Your task to perform on an android device: Open Yahoo.com Image 0: 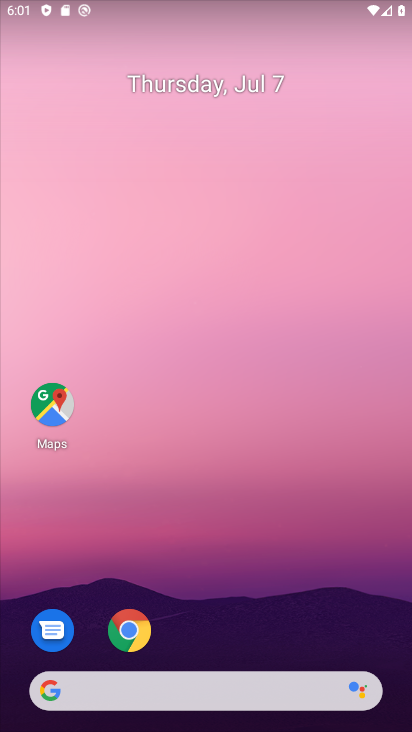
Step 0: click (130, 643)
Your task to perform on an android device: Open Yahoo.com Image 1: 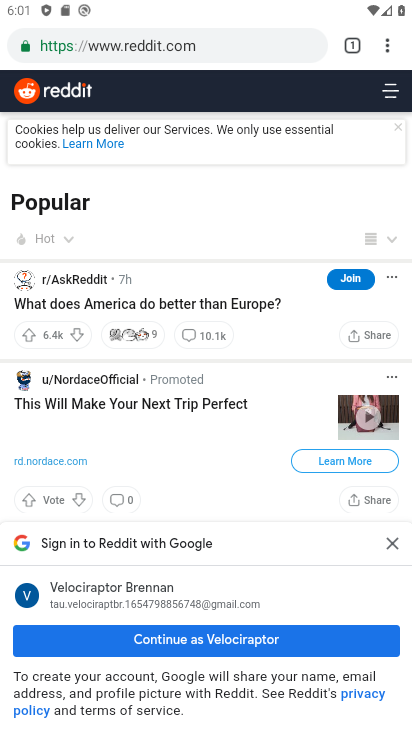
Step 1: press back button
Your task to perform on an android device: Open Yahoo.com Image 2: 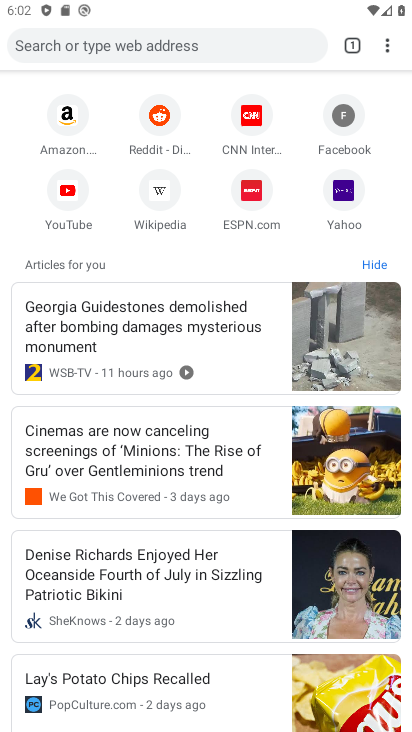
Step 2: click (342, 212)
Your task to perform on an android device: Open Yahoo.com Image 3: 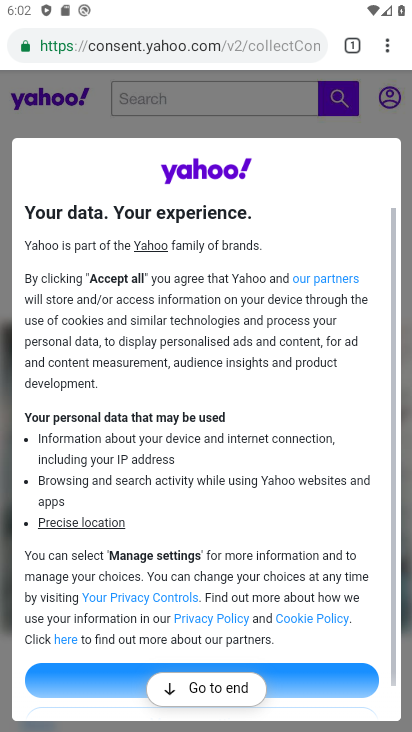
Step 3: click (335, 200)
Your task to perform on an android device: Open Yahoo.com Image 4: 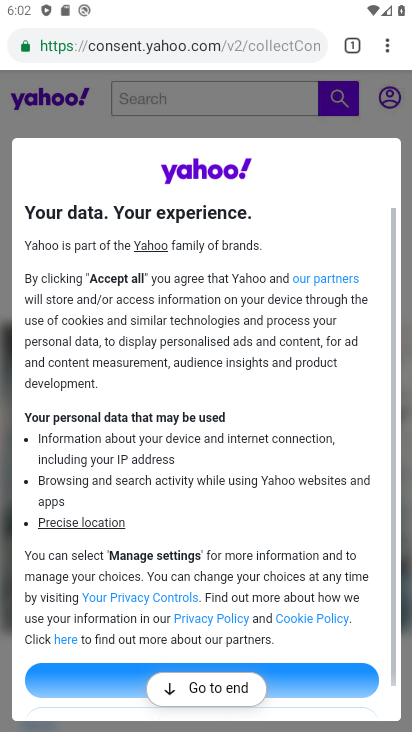
Step 4: click (293, 678)
Your task to perform on an android device: Open Yahoo.com Image 5: 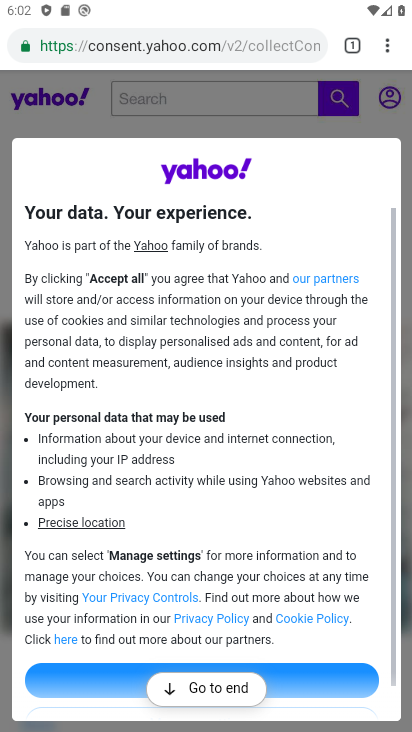
Step 5: task complete